Your task to perform on an android device: Search for sushi restaurants on Maps Image 0: 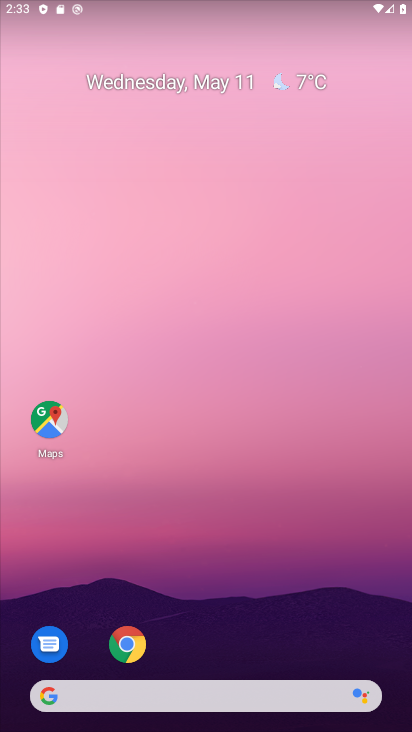
Step 0: click (42, 427)
Your task to perform on an android device: Search for sushi restaurants on Maps Image 1: 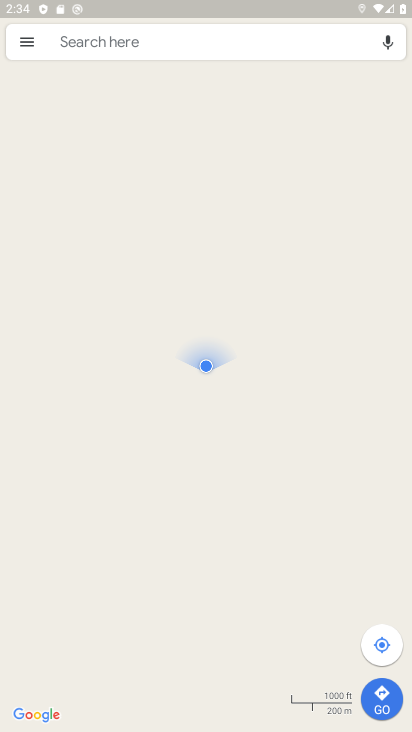
Step 1: click (142, 35)
Your task to perform on an android device: Search for sushi restaurants on Maps Image 2: 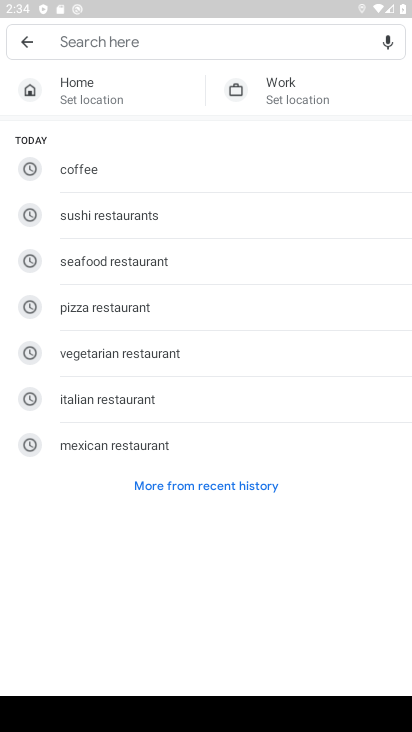
Step 2: type "sushi"
Your task to perform on an android device: Search for sushi restaurants on Maps Image 3: 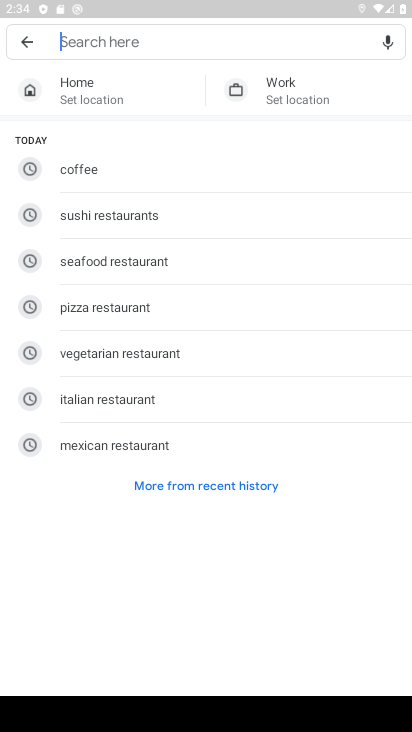
Step 3: click (183, 233)
Your task to perform on an android device: Search for sushi restaurants on Maps Image 4: 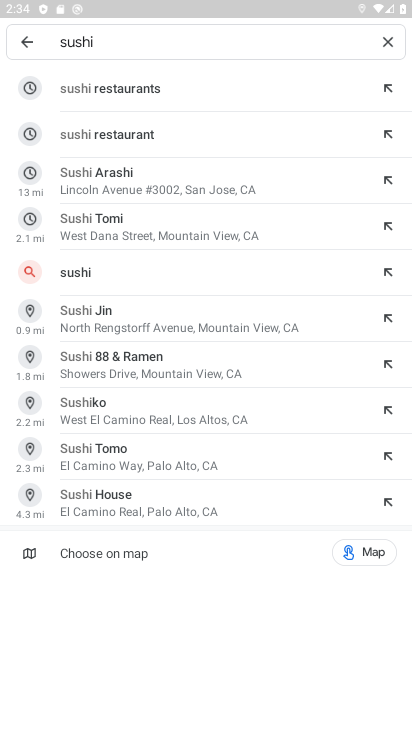
Step 4: click (151, 86)
Your task to perform on an android device: Search for sushi restaurants on Maps Image 5: 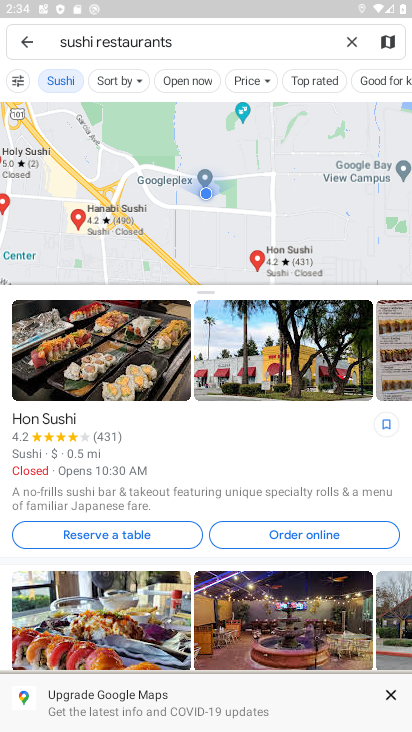
Step 5: task complete